Your task to perform on an android device: change the clock display to analog Image 0: 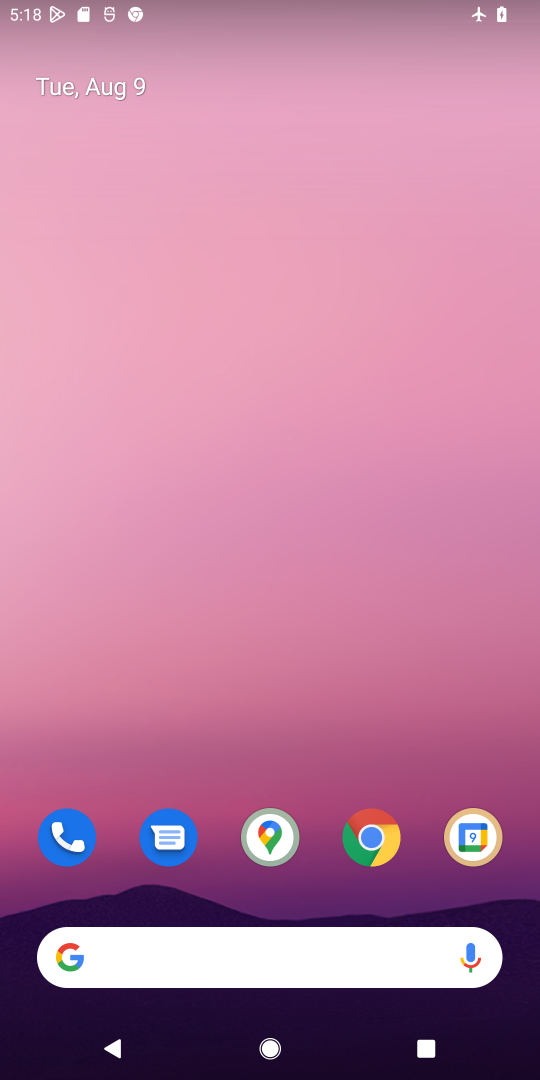
Step 0: click (324, 312)
Your task to perform on an android device: change the clock display to analog Image 1: 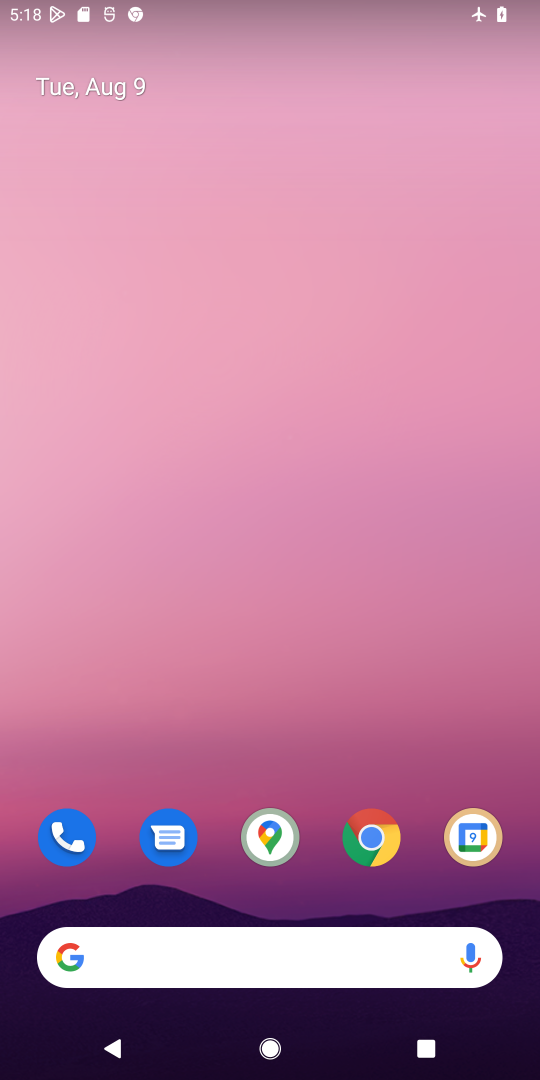
Step 1: drag from (386, 936) to (317, 293)
Your task to perform on an android device: change the clock display to analog Image 2: 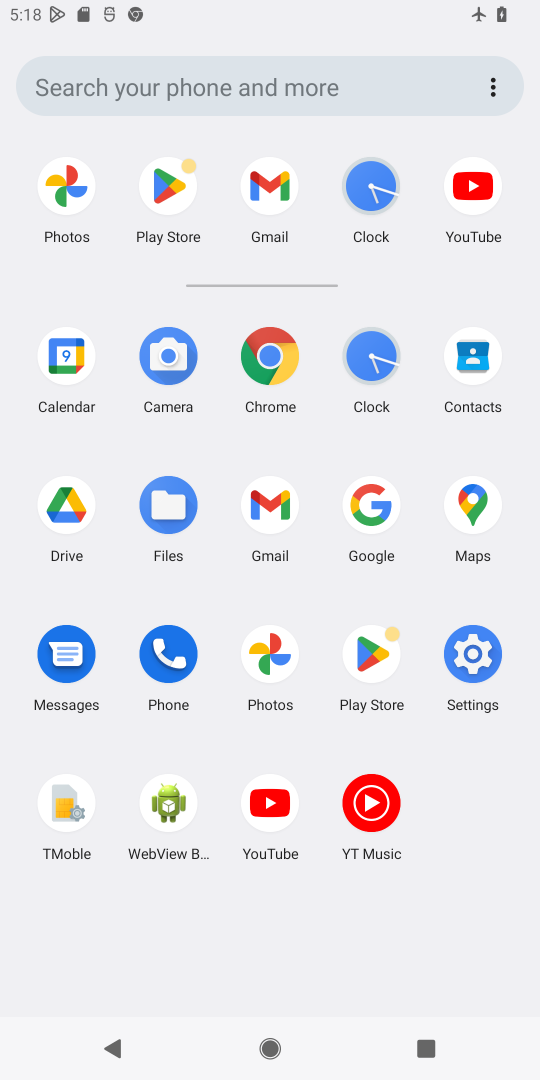
Step 2: click (370, 334)
Your task to perform on an android device: change the clock display to analog Image 3: 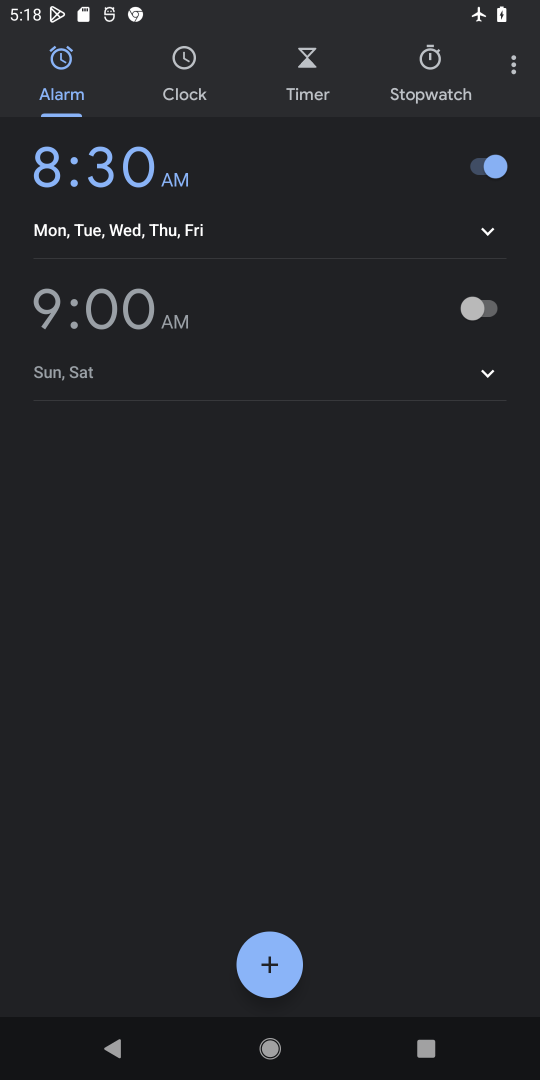
Step 3: click (515, 66)
Your task to perform on an android device: change the clock display to analog Image 4: 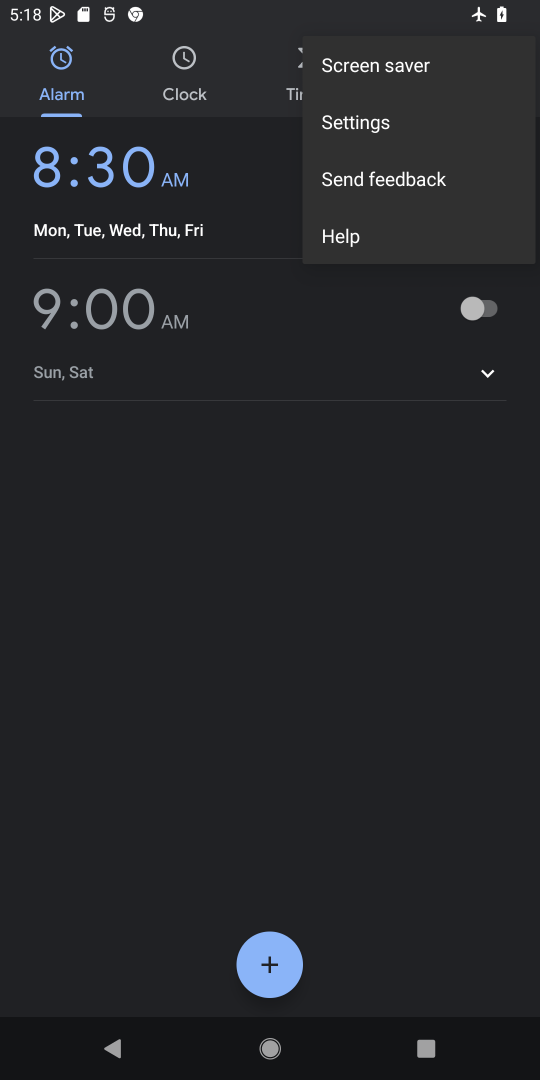
Step 4: click (383, 131)
Your task to perform on an android device: change the clock display to analog Image 5: 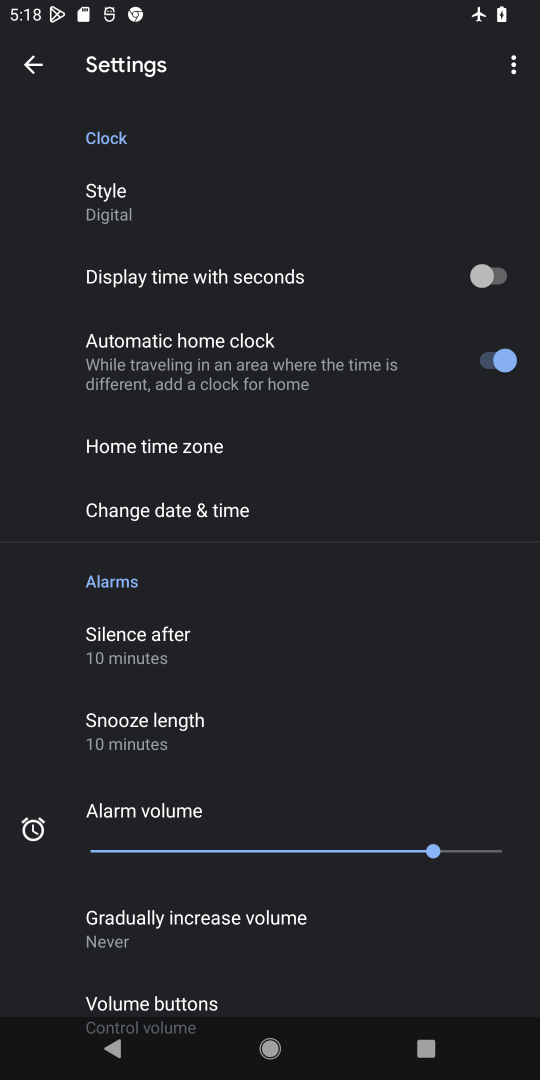
Step 5: click (135, 191)
Your task to perform on an android device: change the clock display to analog Image 6: 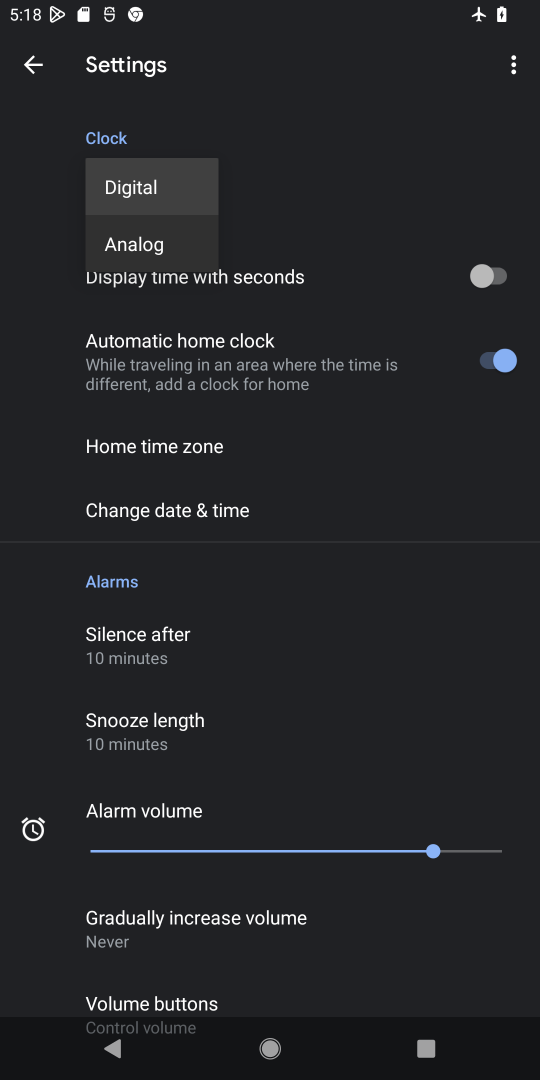
Step 6: click (144, 243)
Your task to perform on an android device: change the clock display to analog Image 7: 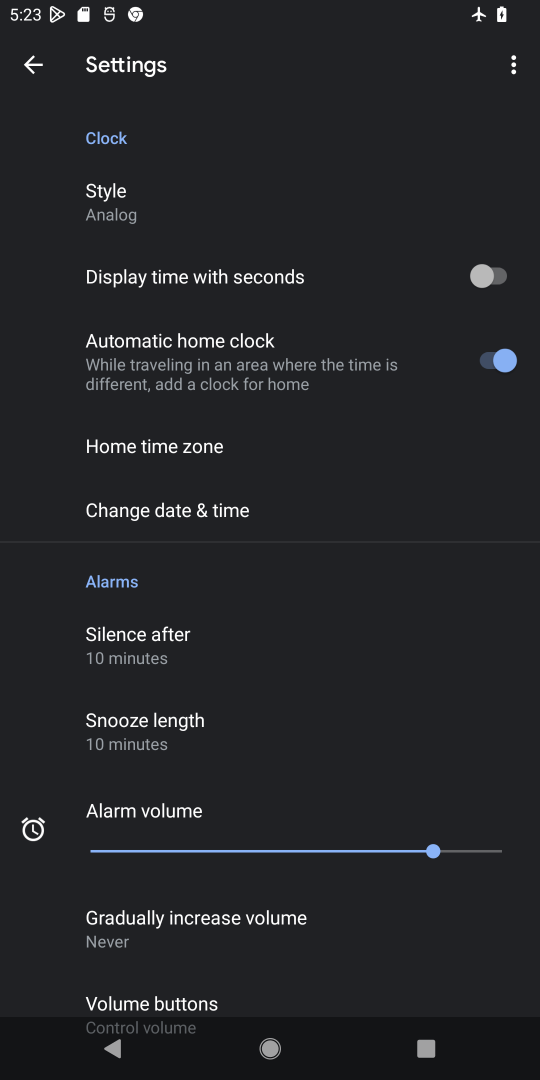
Step 7: task complete